Your task to perform on an android device: Search for Mexican restaurants on Maps Image 0: 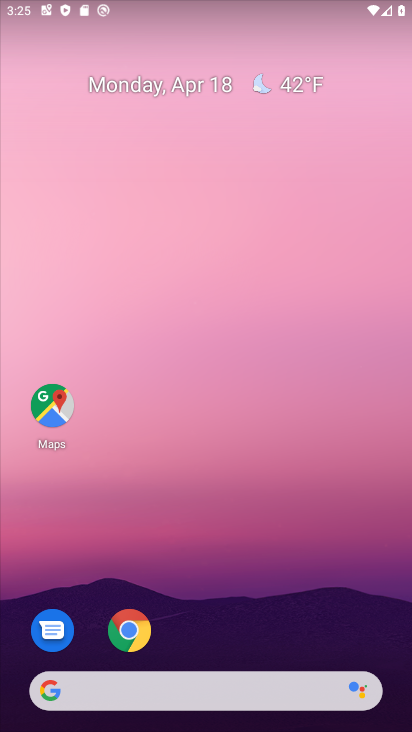
Step 0: drag from (279, 600) to (265, 530)
Your task to perform on an android device: Search for Mexican restaurants on Maps Image 1: 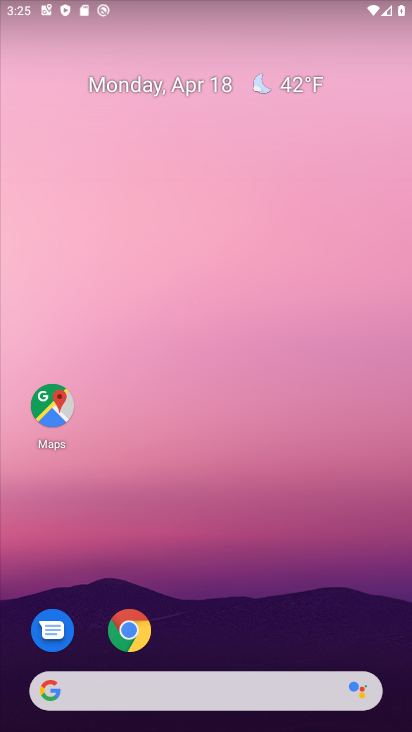
Step 1: click (42, 407)
Your task to perform on an android device: Search for Mexican restaurants on Maps Image 2: 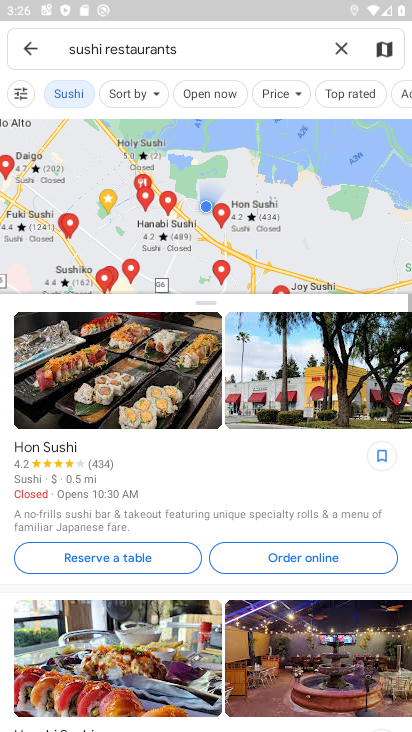
Step 2: click (342, 48)
Your task to perform on an android device: Search for Mexican restaurants on Maps Image 3: 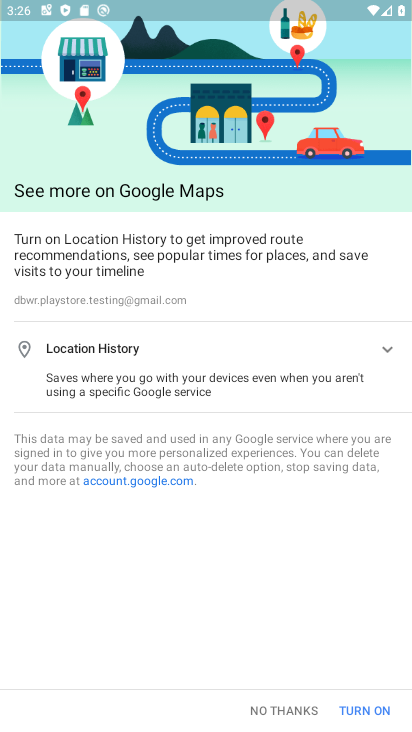
Step 3: click (305, 708)
Your task to perform on an android device: Search for Mexican restaurants on Maps Image 4: 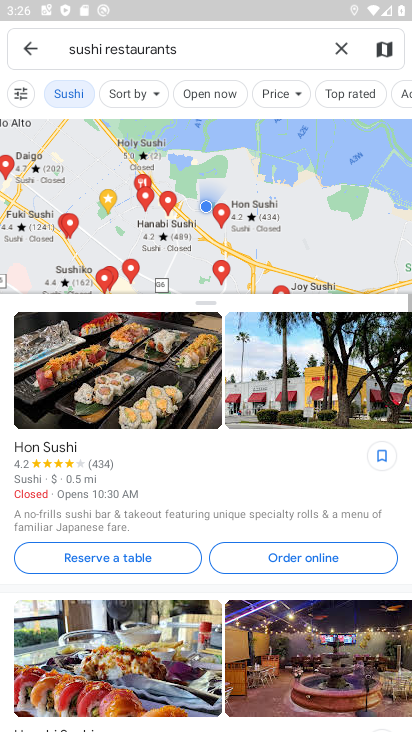
Step 4: click (317, 38)
Your task to perform on an android device: Search for Mexican restaurants on Maps Image 5: 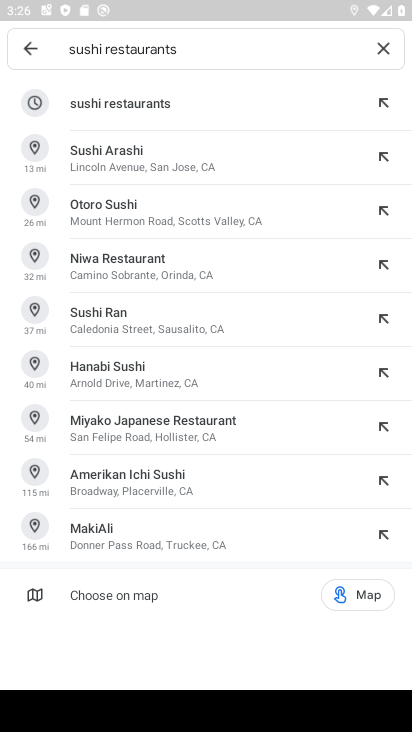
Step 5: click (381, 43)
Your task to perform on an android device: Search for Mexican restaurants on Maps Image 6: 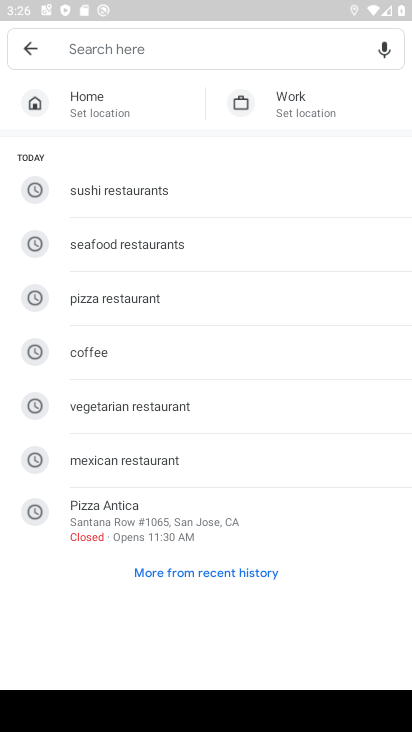
Step 6: click (176, 467)
Your task to perform on an android device: Search for Mexican restaurants on Maps Image 7: 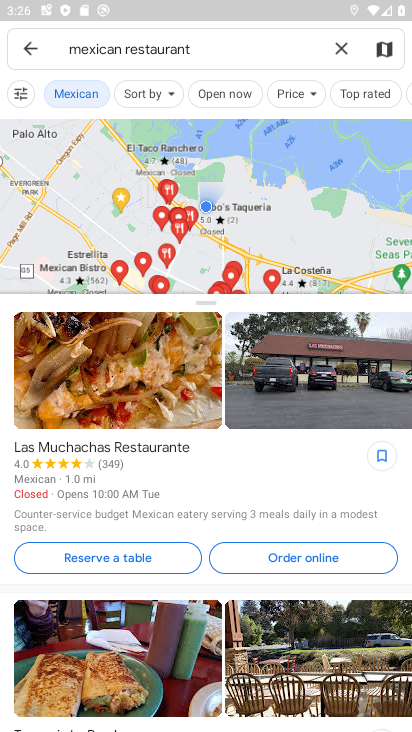
Step 7: task complete